Your task to perform on an android device: Open Google Chrome and click the shortcut for Amazon.com Image 0: 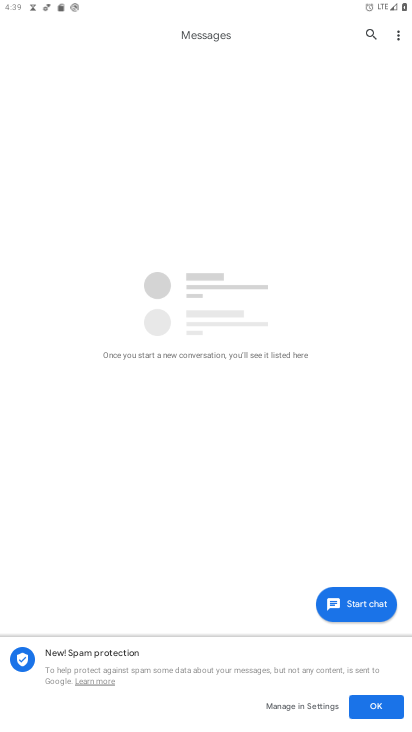
Step 0: press home button
Your task to perform on an android device: Open Google Chrome and click the shortcut for Amazon.com Image 1: 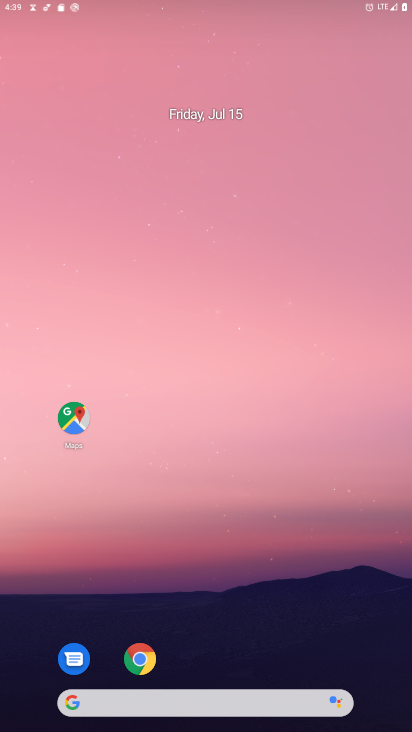
Step 1: drag from (227, 702) to (239, 71)
Your task to perform on an android device: Open Google Chrome and click the shortcut for Amazon.com Image 2: 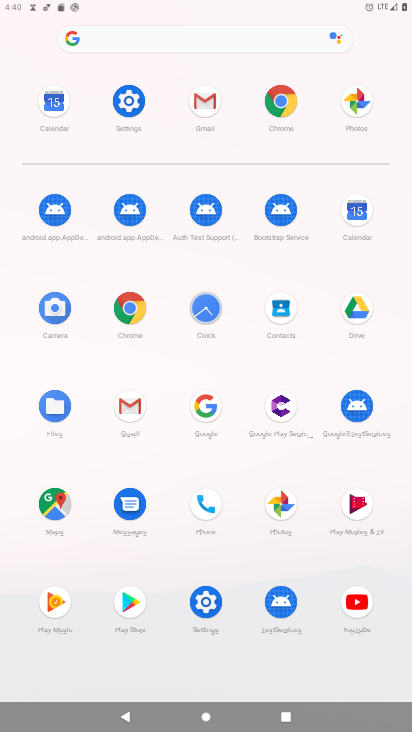
Step 2: click (123, 316)
Your task to perform on an android device: Open Google Chrome and click the shortcut for Amazon.com Image 3: 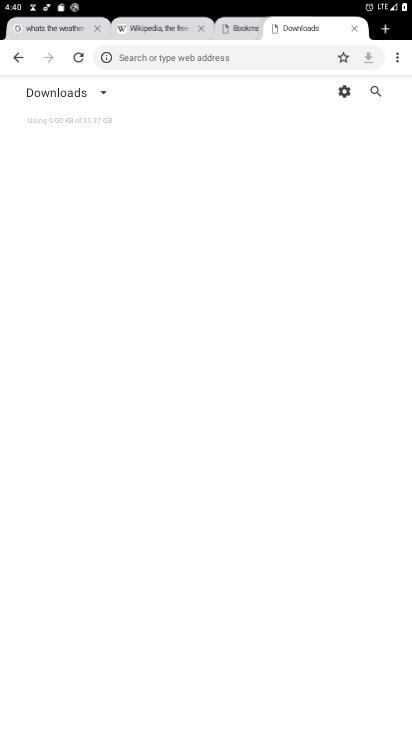
Step 3: click (400, 57)
Your task to perform on an android device: Open Google Chrome and click the shortcut for Amazon.com Image 4: 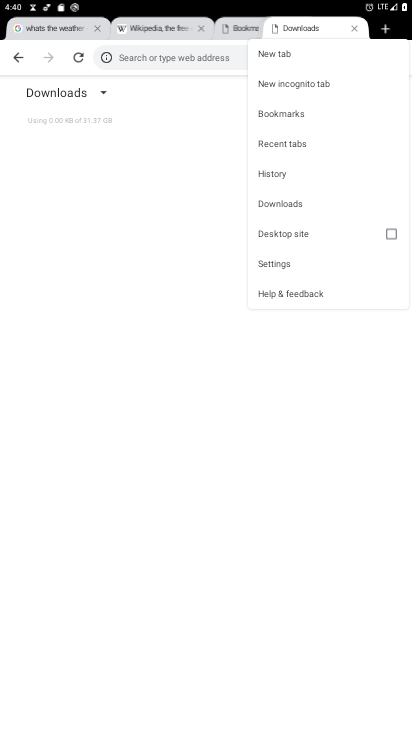
Step 4: click (300, 52)
Your task to perform on an android device: Open Google Chrome and click the shortcut for Amazon.com Image 5: 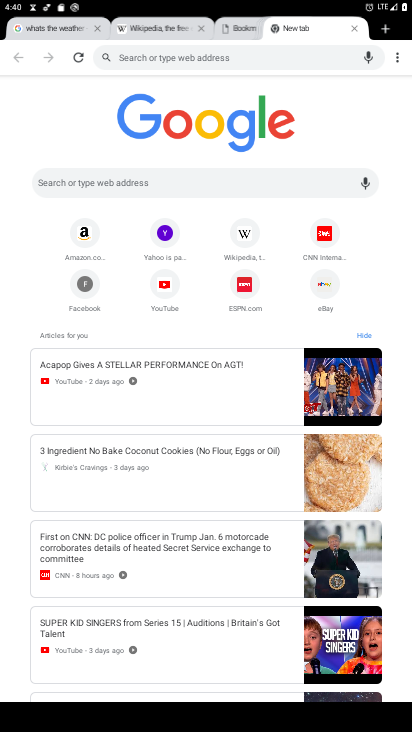
Step 5: click (84, 238)
Your task to perform on an android device: Open Google Chrome and click the shortcut for Amazon.com Image 6: 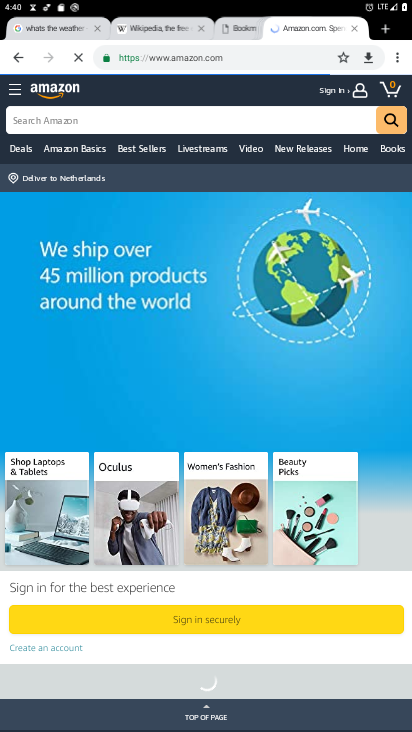
Step 6: click (403, 54)
Your task to perform on an android device: Open Google Chrome and click the shortcut for Amazon.com Image 7: 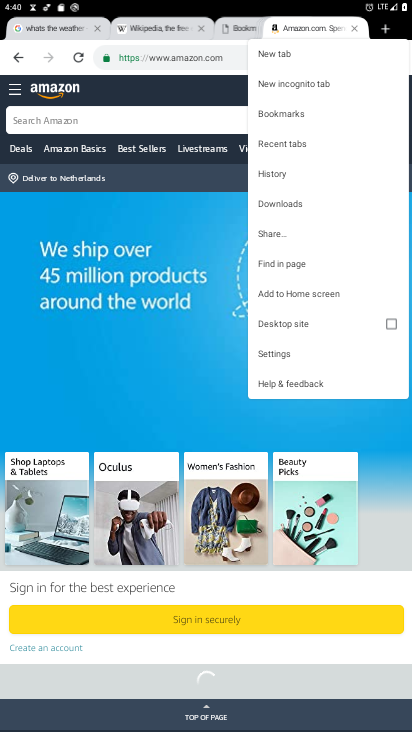
Step 7: click (320, 291)
Your task to perform on an android device: Open Google Chrome and click the shortcut for Amazon.com Image 8: 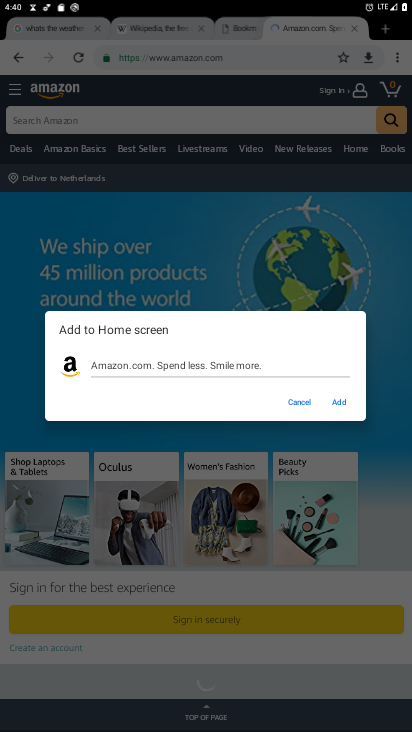
Step 8: click (329, 398)
Your task to perform on an android device: Open Google Chrome and click the shortcut for Amazon.com Image 9: 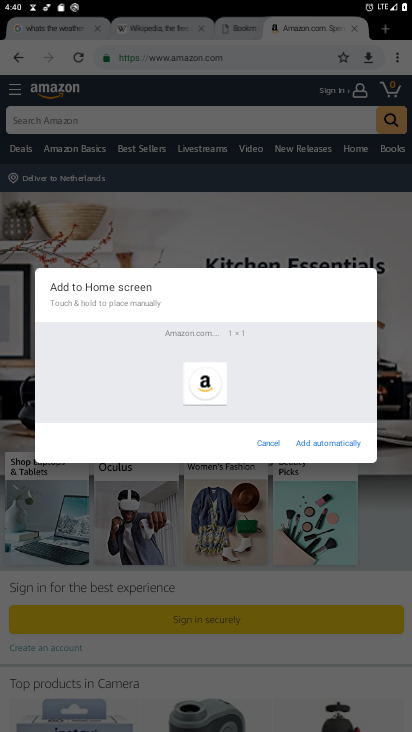
Step 9: click (332, 444)
Your task to perform on an android device: Open Google Chrome and click the shortcut for Amazon.com Image 10: 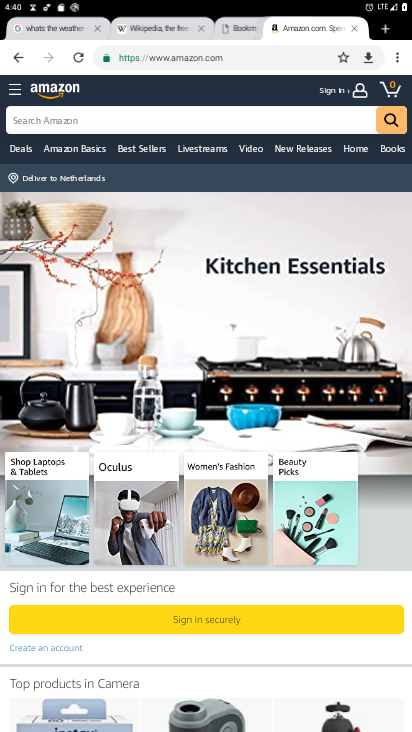
Step 10: task complete